Your task to perform on an android device: check storage Image 0: 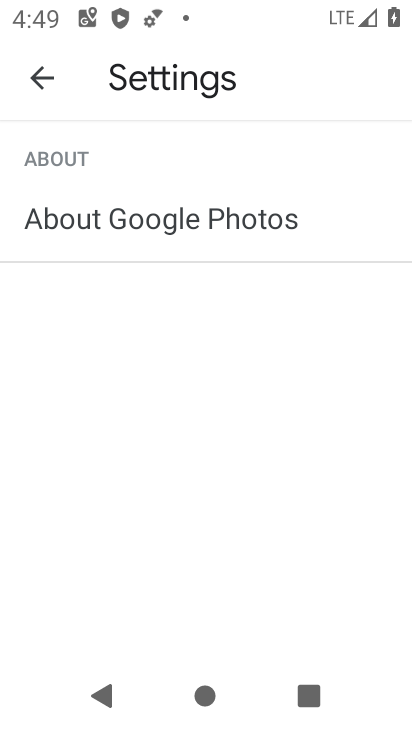
Step 0: press back button
Your task to perform on an android device: check storage Image 1: 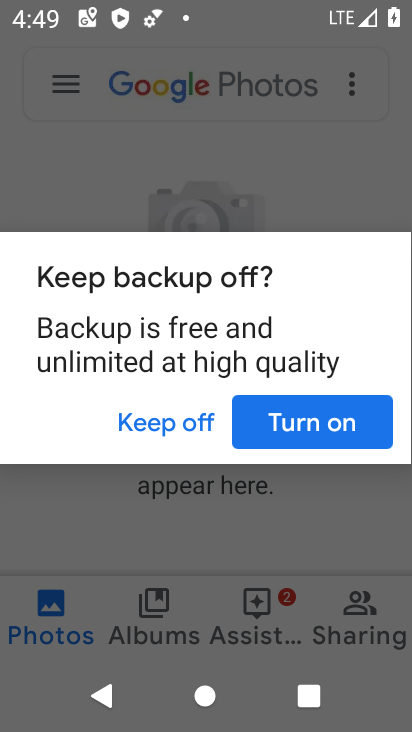
Step 1: press back button
Your task to perform on an android device: check storage Image 2: 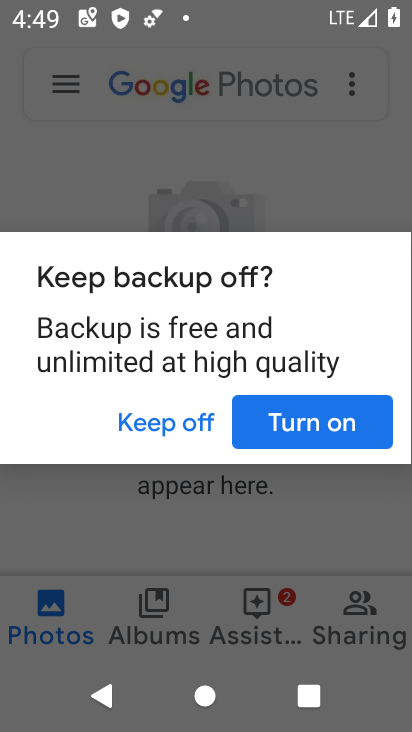
Step 2: press home button
Your task to perform on an android device: check storage Image 3: 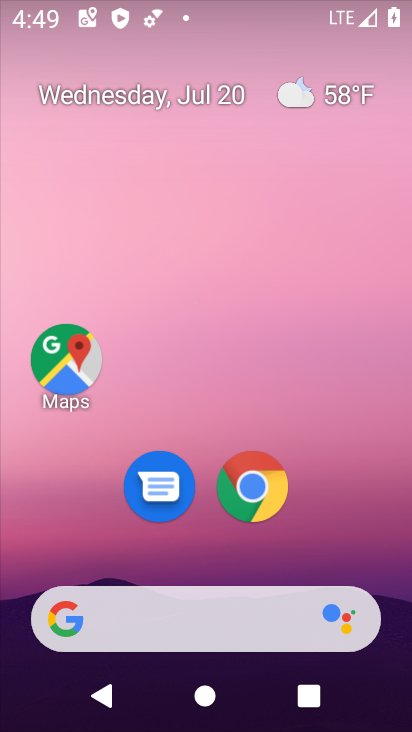
Step 3: drag from (177, 552) to (204, 62)
Your task to perform on an android device: check storage Image 4: 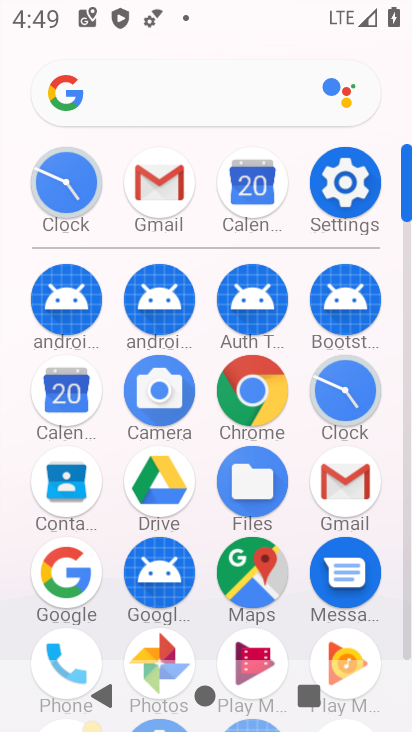
Step 4: click (335, 188)
Your task to perform on an android device: check storage Image 5: 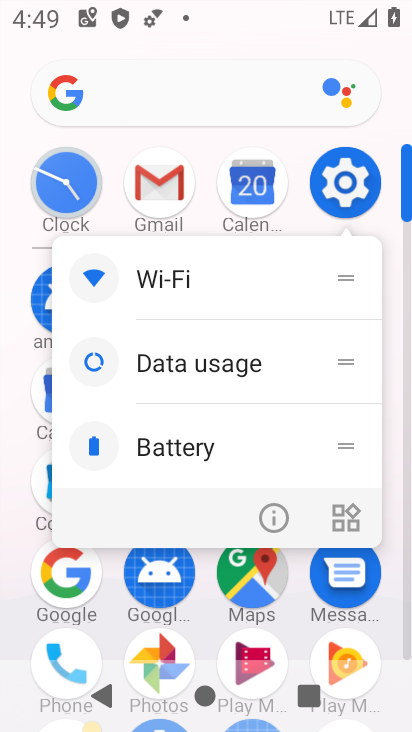
Step 5: click (324, 159)
Your task to perform on an android device: check storage Image 6: 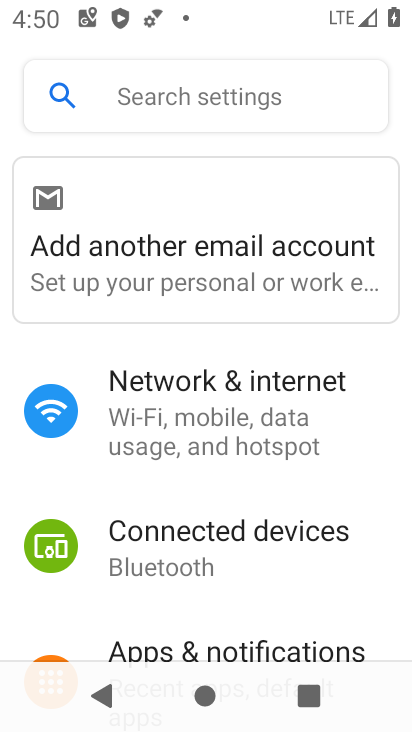
Step 6: drag from (211, 597) to (288, 3)
Your task to perform on an android device: check storage Image 7: 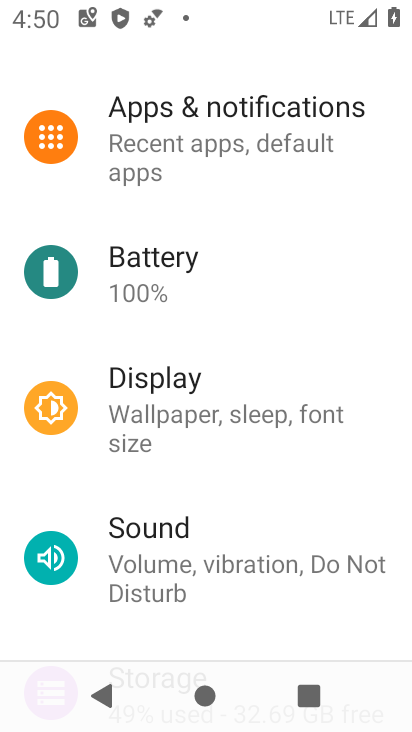
Step 7: drag from (182, 512) to (256, 33)
Your task to perform on an android device: check storage Image 8: 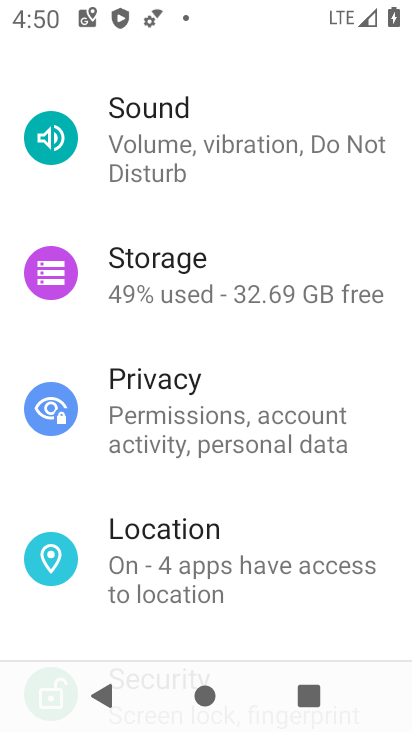
Step 8: click (172, 280)
Your task to perform on an android device: check storage Image 9: 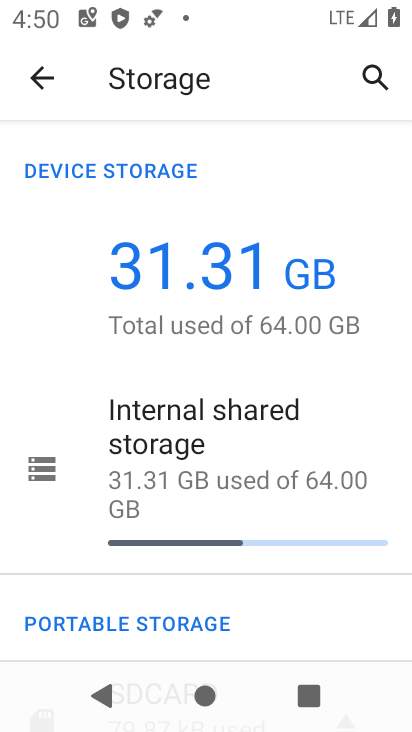
Step 9: task complete